Your task to perform on an android device: What's on my calendar tomorrow? Image 0: 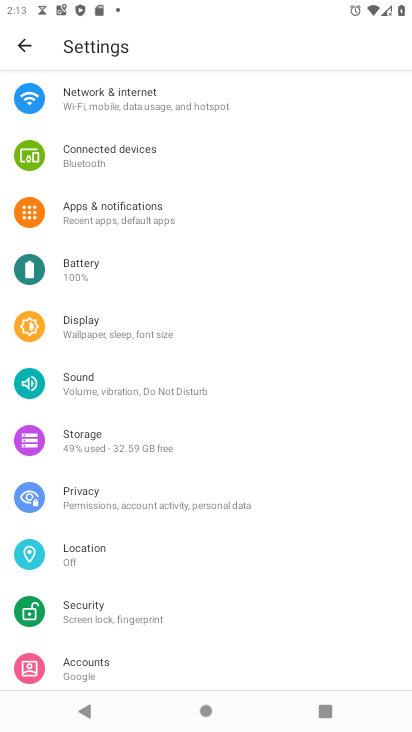
Step 0: press home button
Your task to perform on an android device: What's on my calendar tomorrow? Image 1: 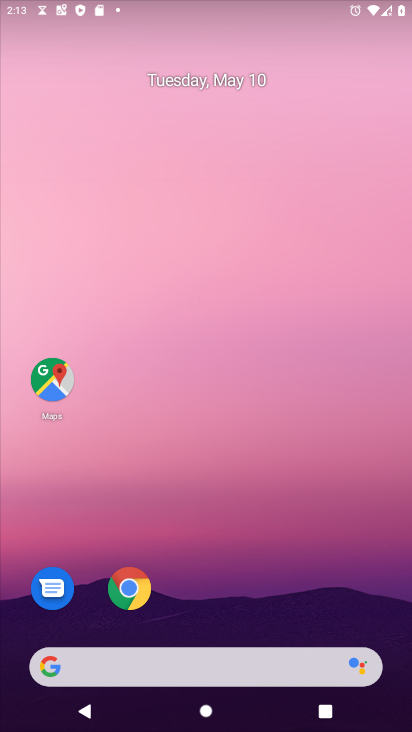
Step 1: drag from (239, 535) to (239, 237)
Your task to perform on an android device: What's on my calendar tomorrow? Image 2: 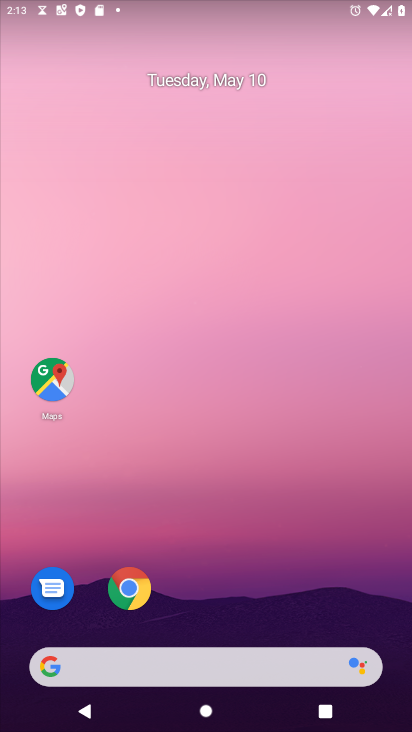
Step 2: drag from (180, 654) to (249, 234)
Your task to perform on an android device: What's on my calendar tomorrow? Image 3: 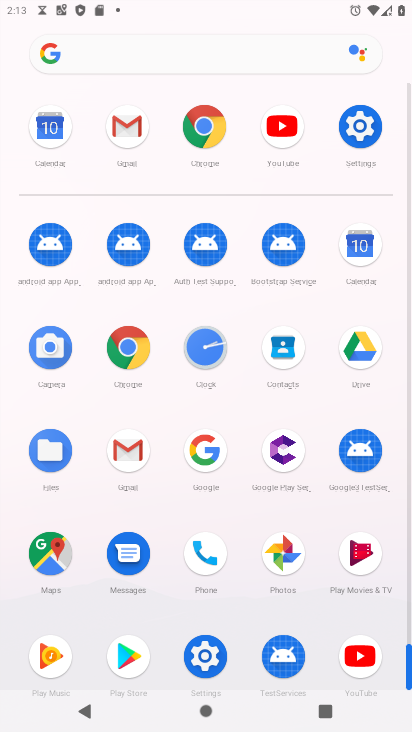
Step 3: click (355, 238)
Your task to perform on an android device: What's on my calendar tomorrow? Image 4: 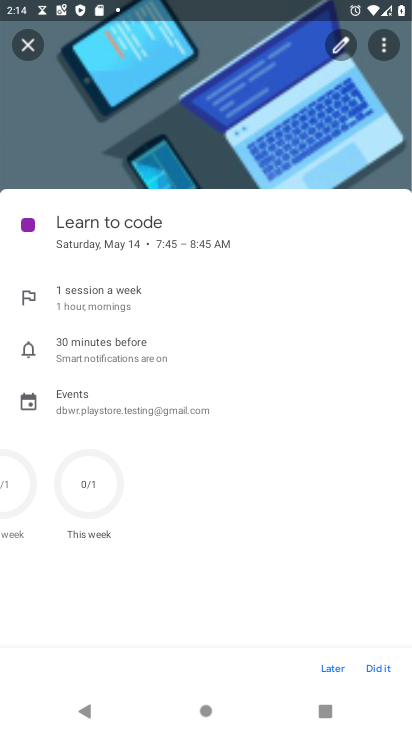
Step 4: click (24, 42)
Your task to perform on an android device: What's on my calendar tomorrow? Image 5: 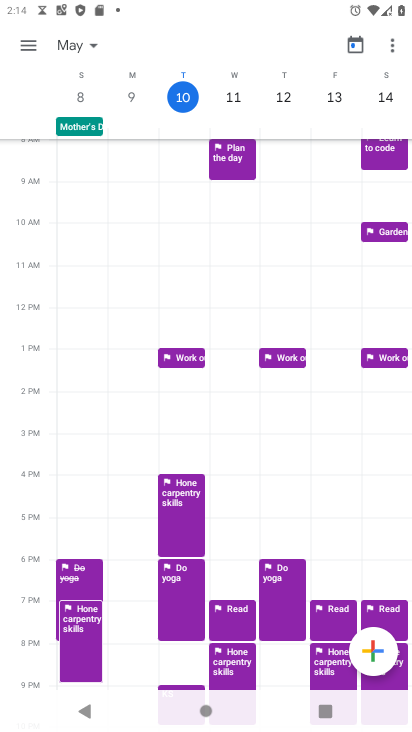
Step 5: click (224, 87)
Your task to perform on an android device: What's on my calendar tomorrow? Image 6: 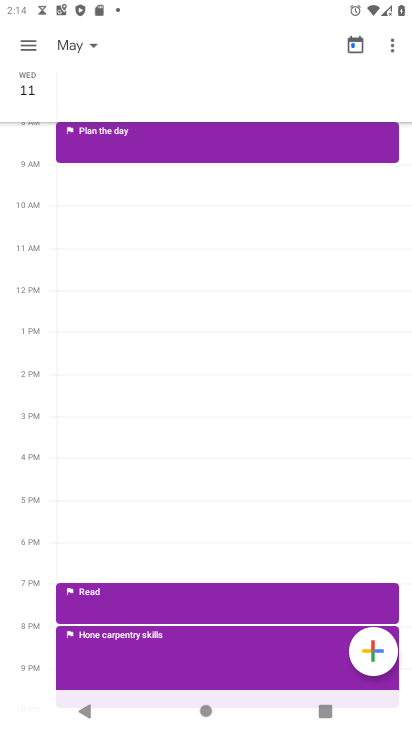
Step 6: task complete